Your task to perform on an android device: Open Reddit.com Image 0: 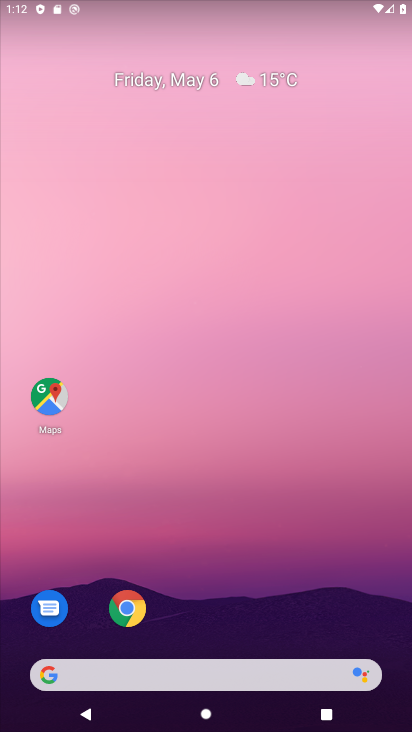
Step 0: click (126, 618)
Your task to perform on an android device: Open Reddit.com Image 1: 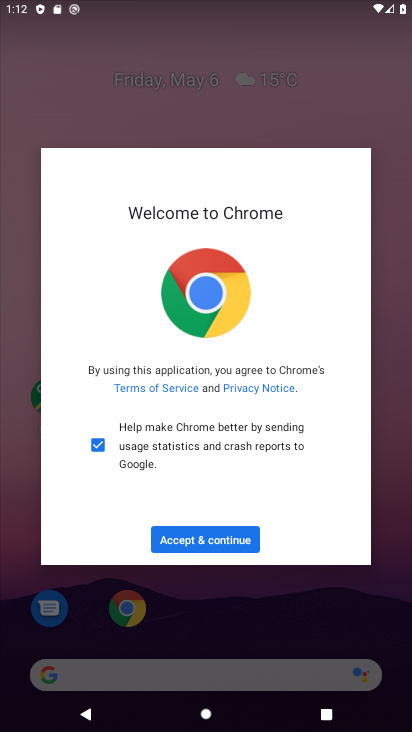
Step 1: click (209, 542)
Your task to perform on an android device: Open Reddit.com Image 2: 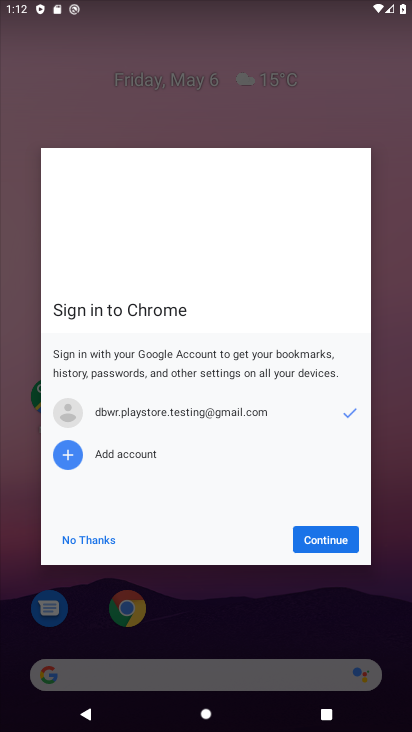
Step 2: click (331, 540)
Your task to perform on an android device: Open Reddit.com Image 3: 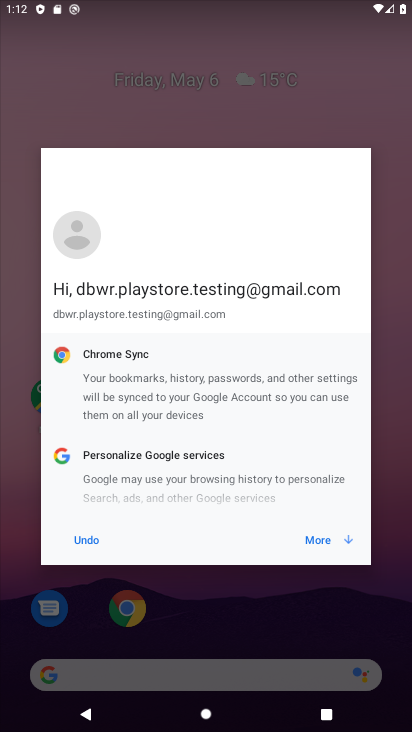
Step 3: click (331, 540)
Your task to perform on an android device: Open Reddit.com Image 4: 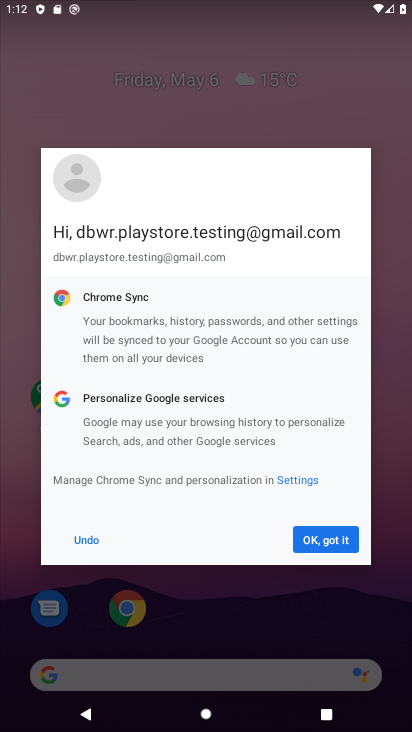
Step 4: click (303, 537)
Your task to perform on an android device: Open Reddit.com Image 5: 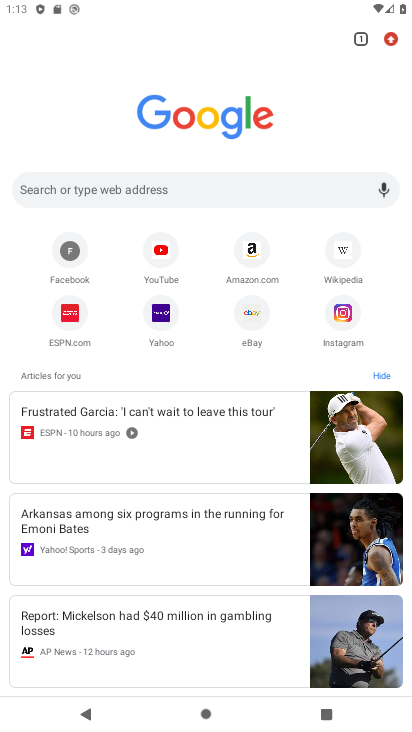
Step 5: click (248, 201)
Your task to perform on an android device: Open Reddit.com Image 6: 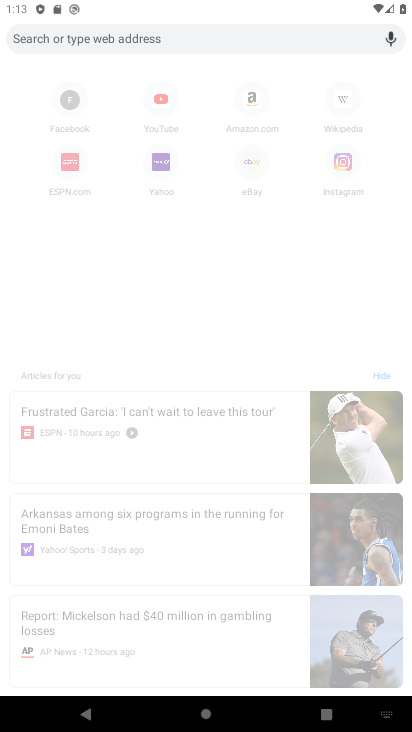
Step 6: type "Reddit.com"
Your task to perform on an android device: Open Reddit.com Image 7: 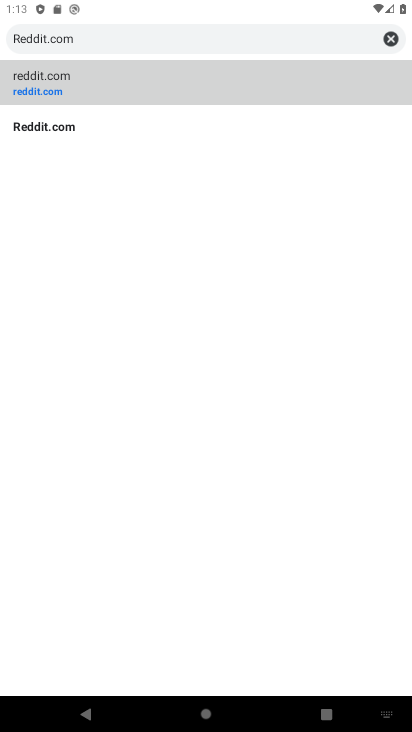
Step 7: click (119, 86)
Your task to perform on an android device: Open Reddit.com Image 8: 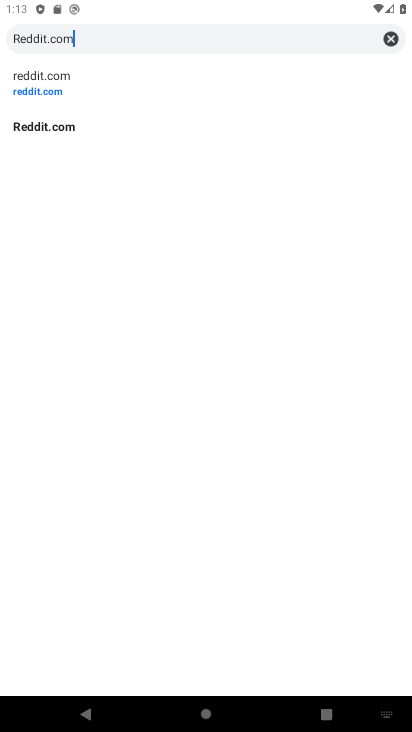
Step 8: click (32, 74)
Your task to perform on an android device: Open Reddit.com Image 9: 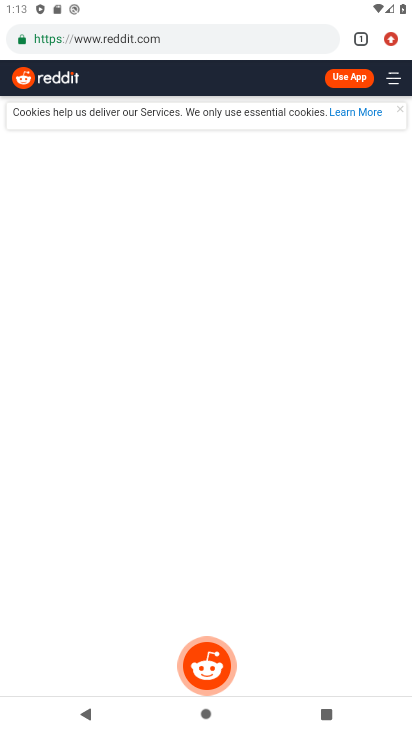
Step 9: task complete